Your task to perform on an android device: check data usage Image 0: 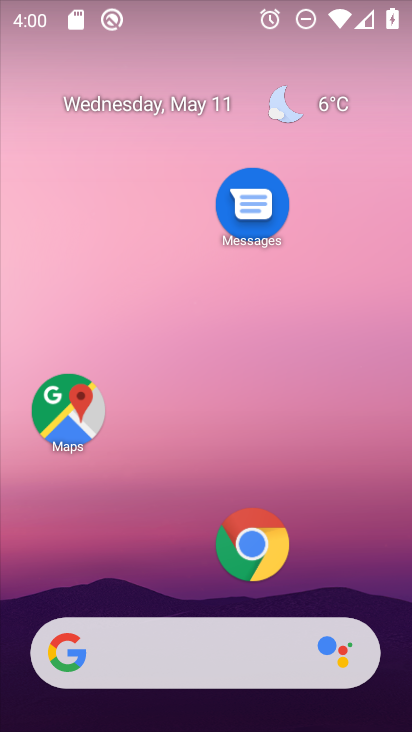
Step 0: drag from (159, 527) to (228, 147)
Your task to perform on an android device: check data usage Image 1: 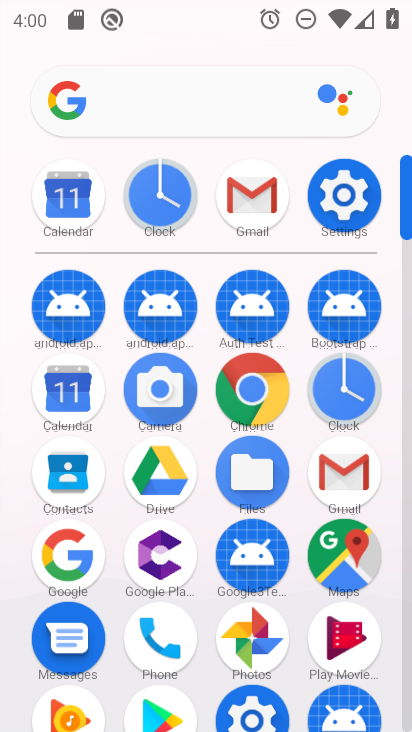
Step 1: click (345, 189)
Your task to perform on an android device: check data usage Image 2: 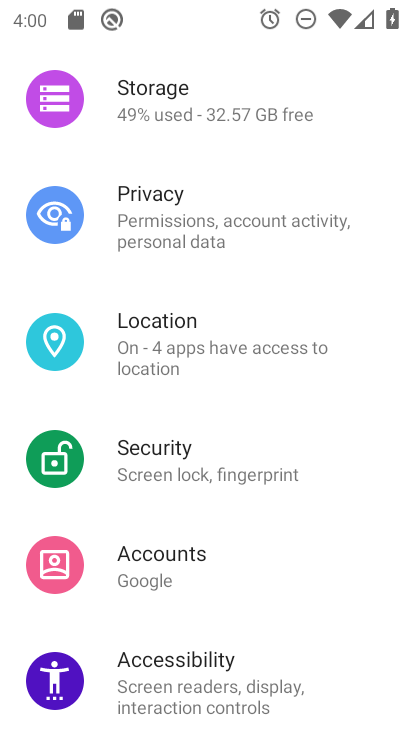
Step 2: drag from (286, 167) to (191, 681)
Your task to perform on an android device: check data usage Image 3: 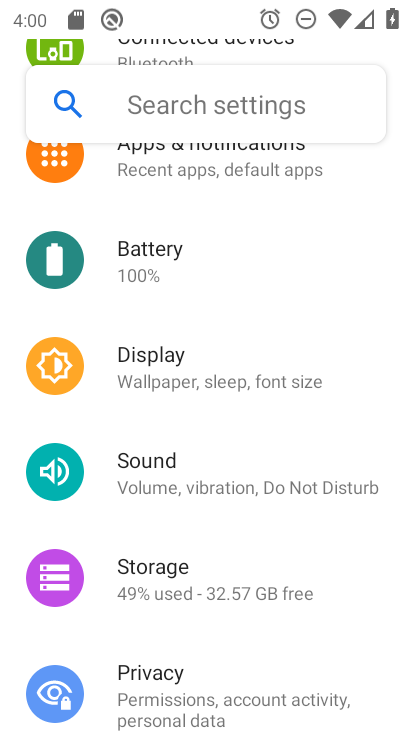
Step 3: drag from (228, 247) to (228, 728)
Your task to perform on an android device: check data usage Image 4: 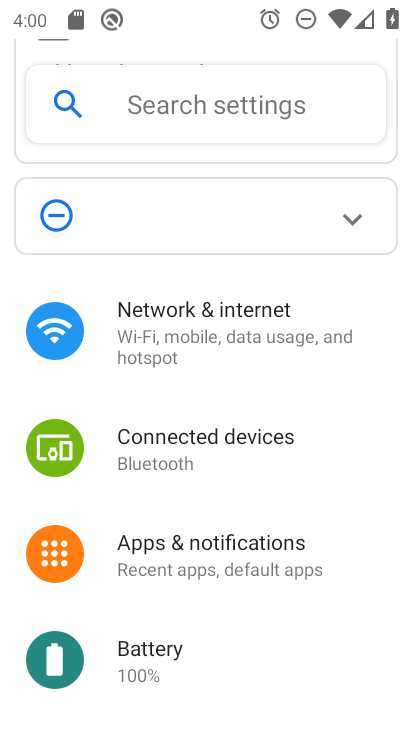
Step 4: click (234, 346)
Your task to perform on an android device: check data usage Image 5: 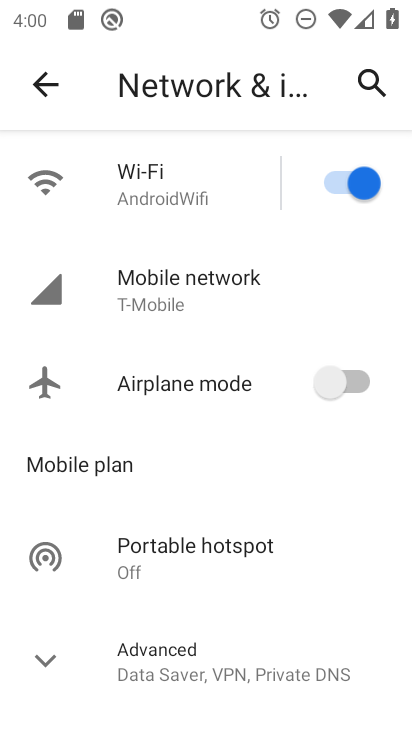
Step 5: click (162, 664)
Your task to perform on an android device: check data usage Image 6: 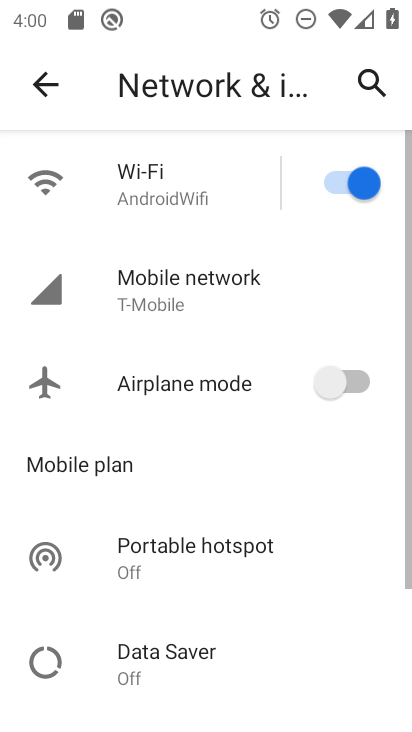
Step 6: drag from (148, 675) to (294, 35)
Your task to perform on an android device: check data usage Image 7: 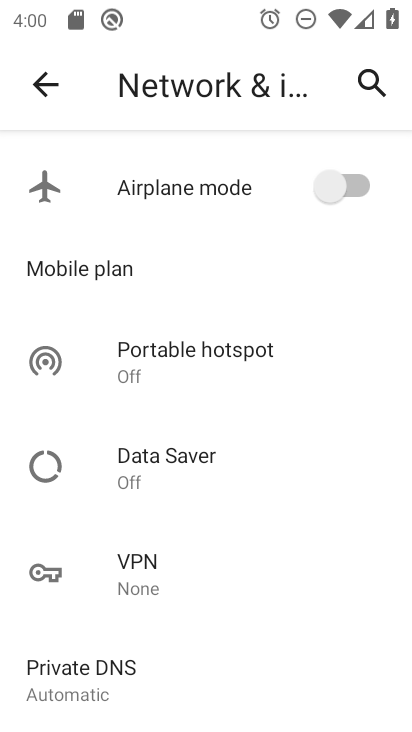
Step 7: drag from (242, 243) to (180, 724)
Your task to perform on an android device: check data usage Image 8: 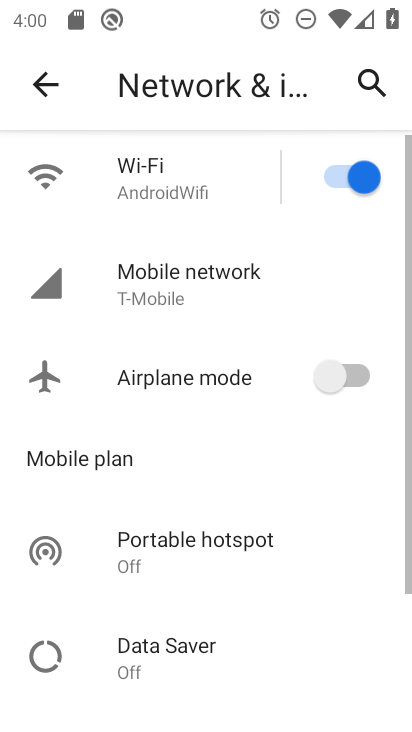
Step 8: click (156, 283)
Your task to perform on an android device: check data usage Image 9: 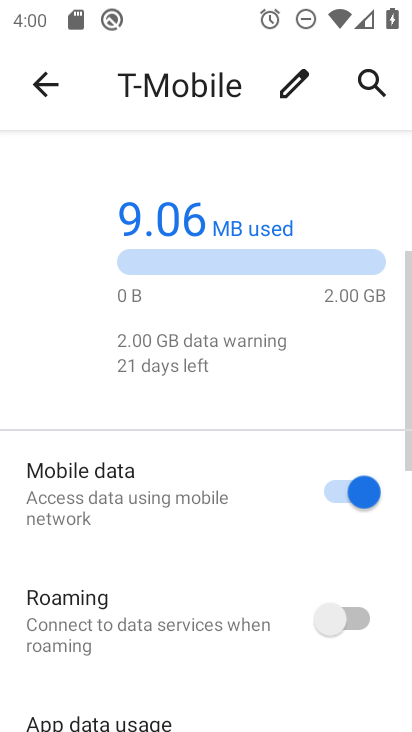
Step 9: drag from (164, 650) to (255, 267)
Your task to perform on an android device: check data usage Image 10: 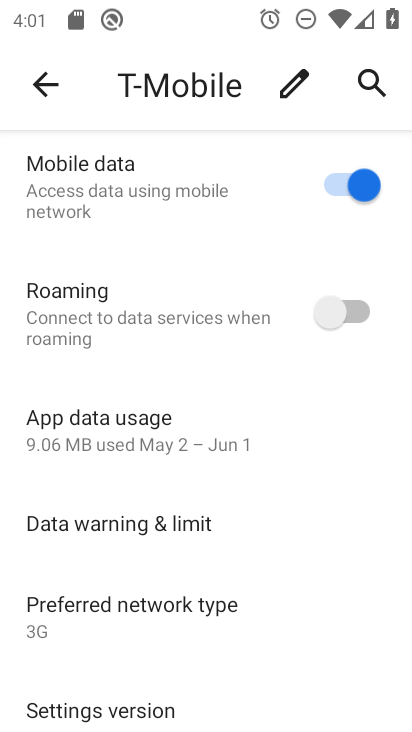
Step 10: click (100, 405)
Your task to perform on an android device: check data usage Image 11: 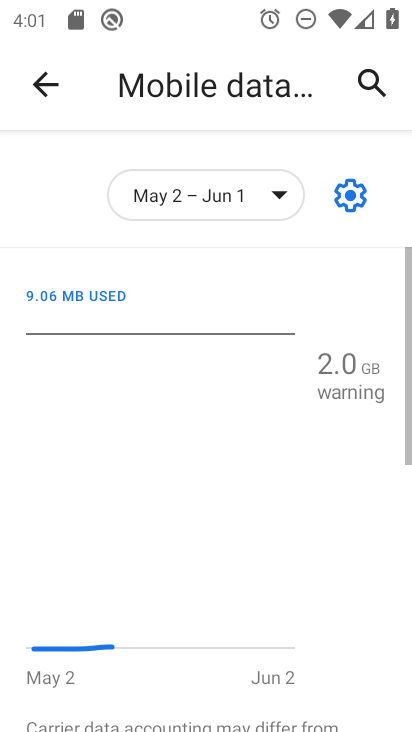
Step 11: task complete